Your task to perform on an android device: Search for Mexican restaurants on Maps Image 0: 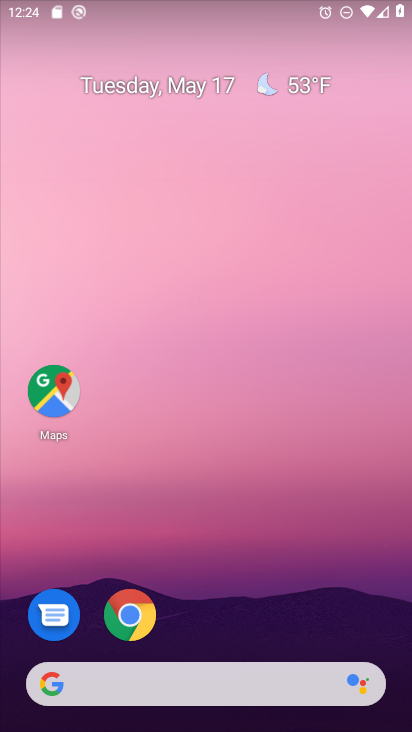
Step 0: click (60, 399)
Your task to perform on an android device: Search for Mexican restaurants on Maps Image 1: 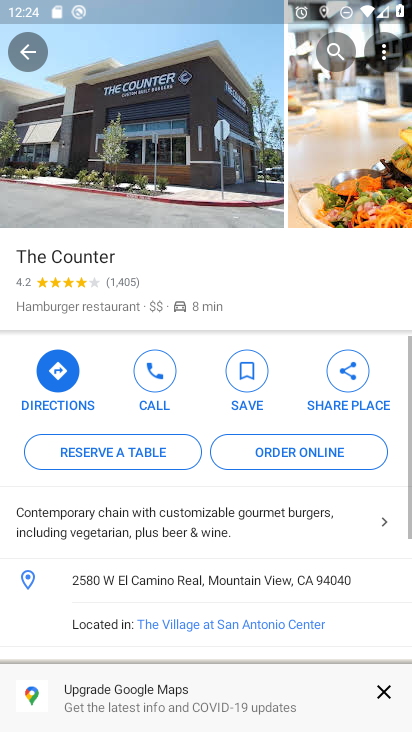
Step 1: click (27, 50)
Your task to perform on an android device: Search for Mexican restaurants on Maps Image 2: 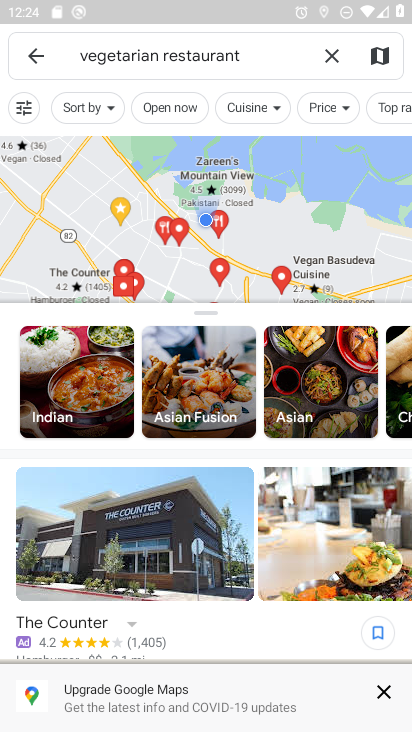
Step 2: click (330, 61)
Your task to perform on an android device: Search for Mexican restaurants on Maps Image 3: 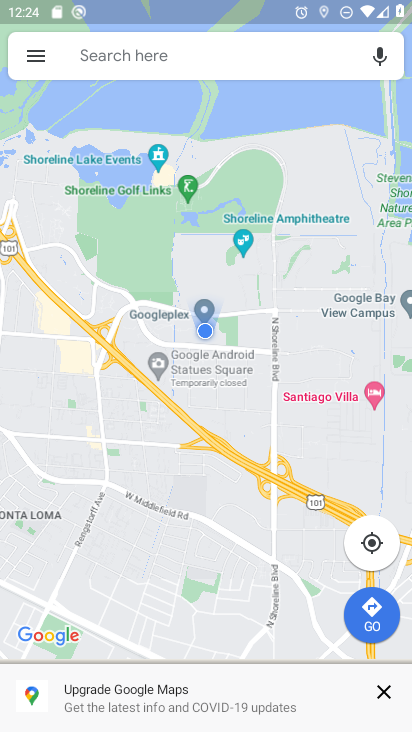
Step 3: click (224, 57)
Your task to perform on an android device: Search for Mexican restaurants on Maps Image 4: 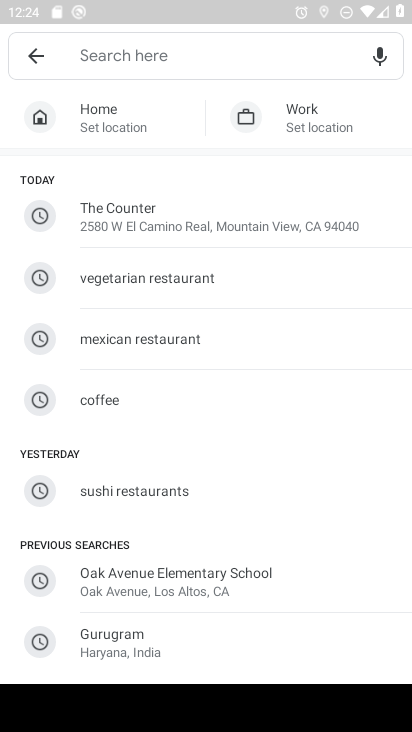
Step 4: click (126, 330)
Your task to perform on an android device: Search for Mexican restaurants on Maps Image 5: 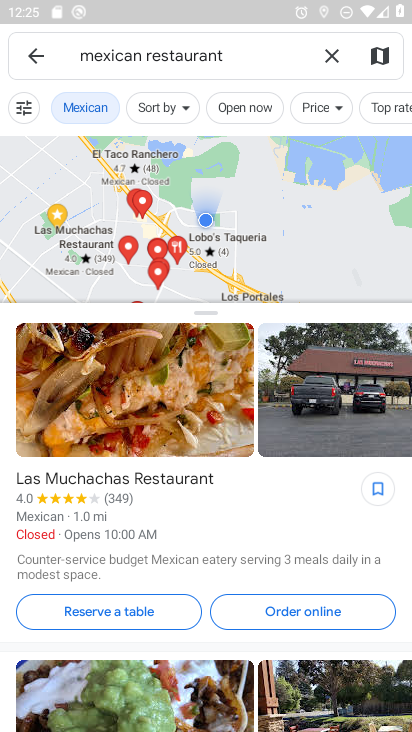
Step 5: task complete